Your task to perform on an android device: Check the latest 3D printers on Target. Image 0: 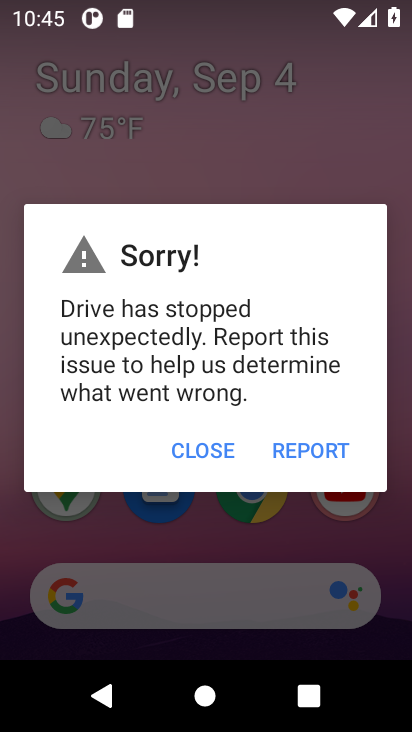
Step 0: click (307, 438)
Your task to perform on an android device: Check the latest 3D printers on Target. Image 1: 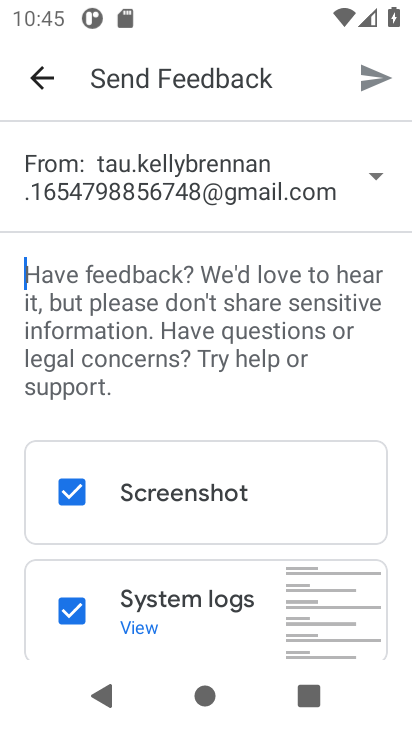
Step 1: task complete